Your task to perform on an android device: What's the weather? Image 0: 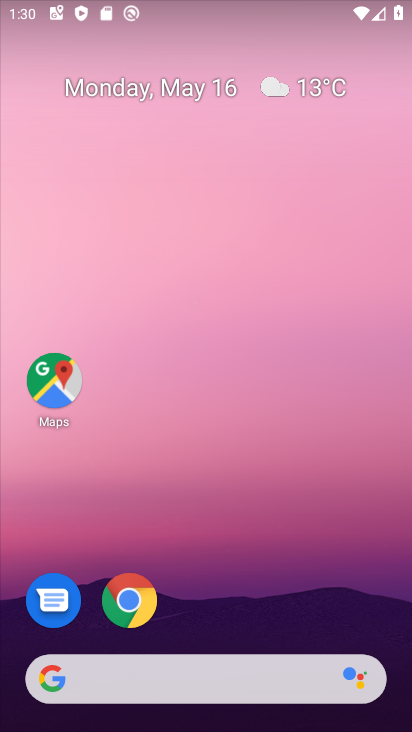
Step 0: click (311, 87)
Your task to perform on an android device: What's the weather? Image 1: 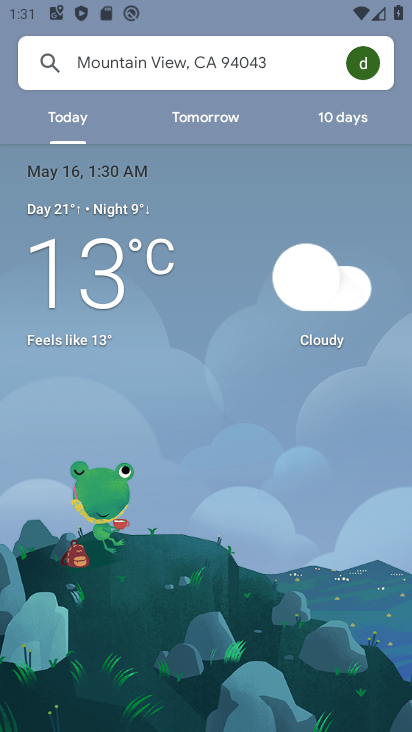
Step 1: task complete